Your task to perform on an android device: turn on notifications settings in the gmail app Image 0: 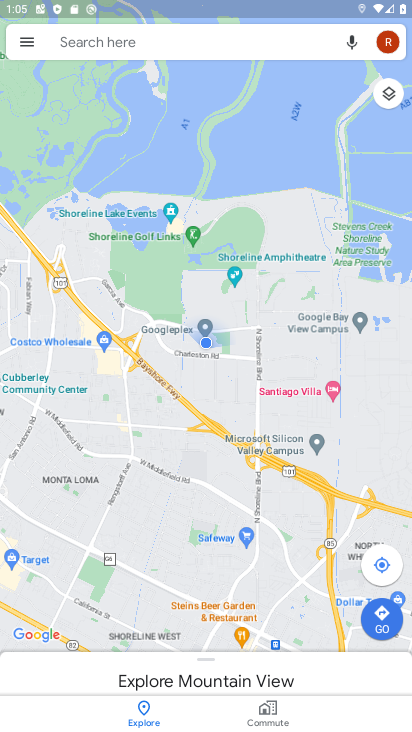
Step 0: press home button
Your task to perform on an android device: turn on notifications settings in the gmail app Image 1: 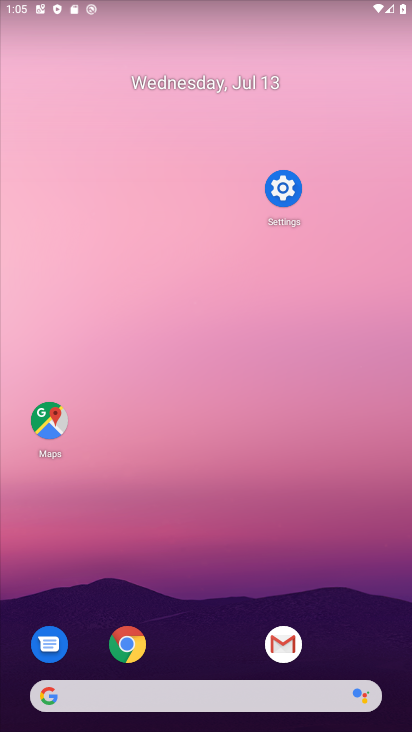
Step 1: click (276, 656)
Your task to perform on an android device: turn on notifications settings in the gmail app Image 2: 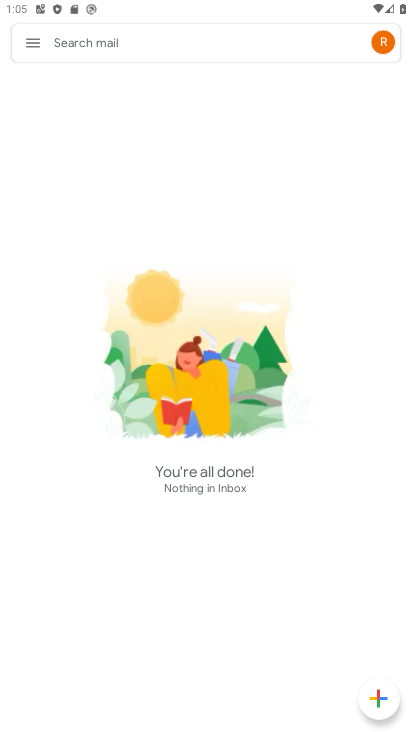
Step 2: click (23, 58)
Your task to perform on an android device: turn on notifications settings in the gmail app Image 3: 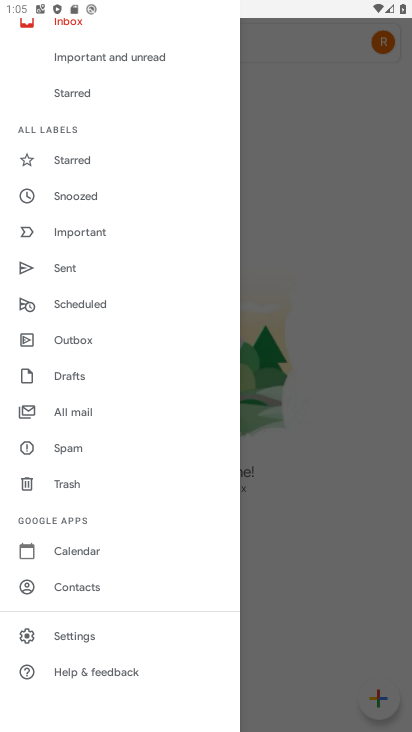
Step 3: click (104, 633)
Your task to perform on an android device: turn on notifications settings in the gmail app Image 4: 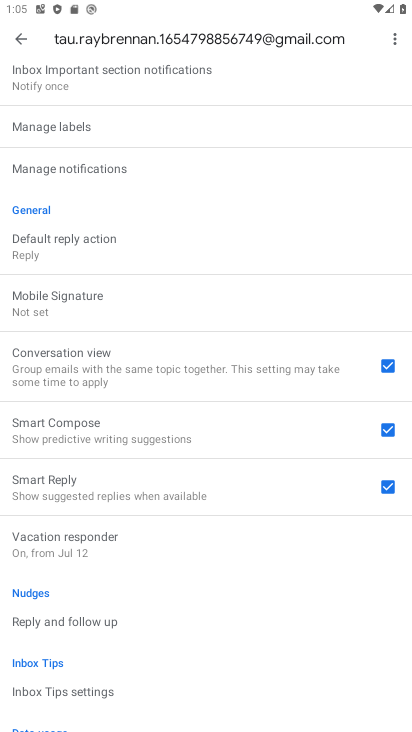
Step 4: click (85, 168)
Your task to perform on an android device: turn on notifications settings in the gmail app Image 5: 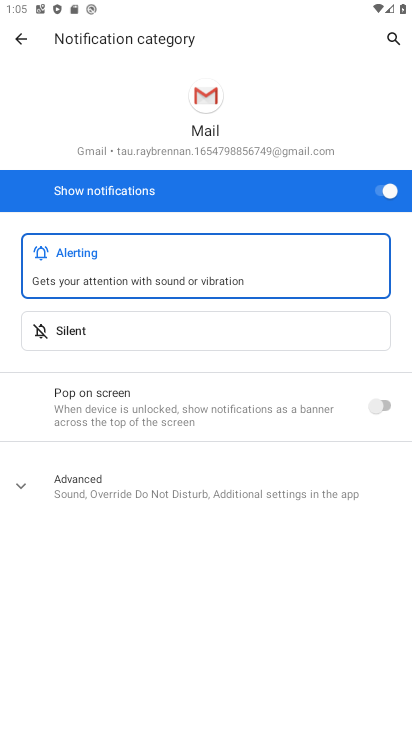
Step 5: click (380, 176)
Your task to perform on an android device: turn on notifications settings in the gmail app Image 6: 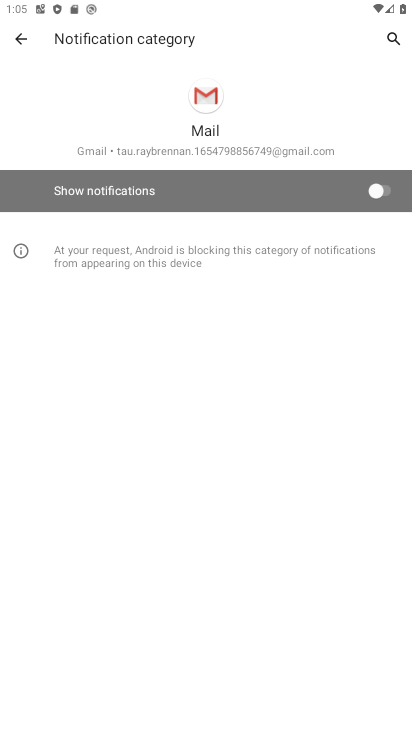
Step 6: click (380, 176)
Your task to perform on an android device: turn on notifications settings in the gmail app Image 7: 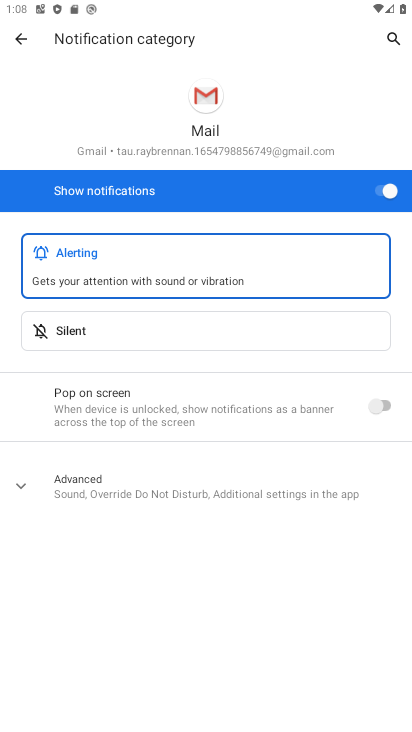
Step 7: task complete